Your task to perform on an android device: Open the web browser Image 0: 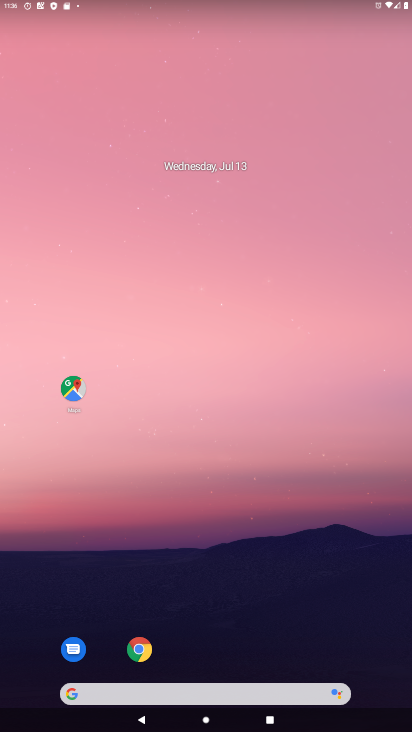
Step 0: click (141, 649)
Your task to perform on an android device: Open the web browser Image 1: 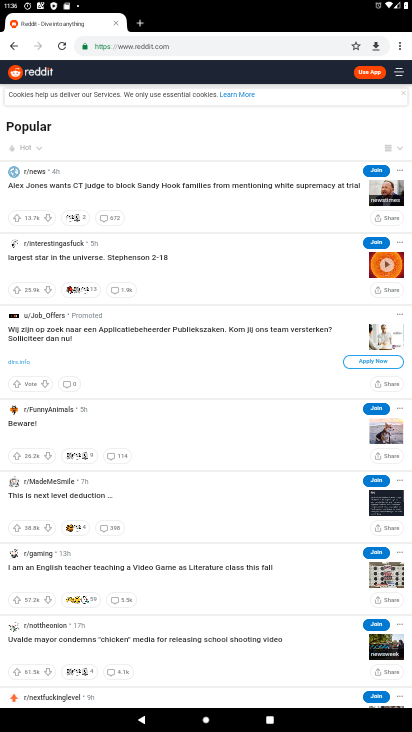
Step 1: task complete